Your task to perform on an android device: Open CNN.com Image 0: 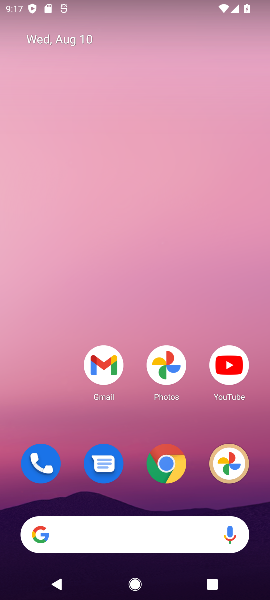
Step 0: click (122, 526)
Your task to perform on an android device: Open CNN.com Image 1: 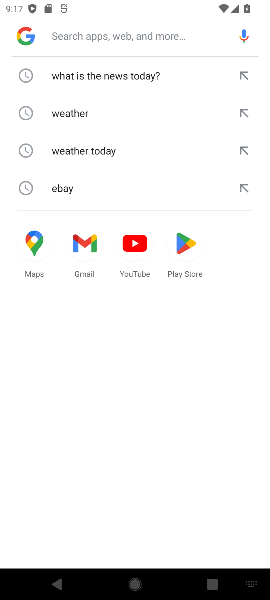
Step 1: type "CNN.com"
Your task to perform on an android device: Open CNN.com Image 2: 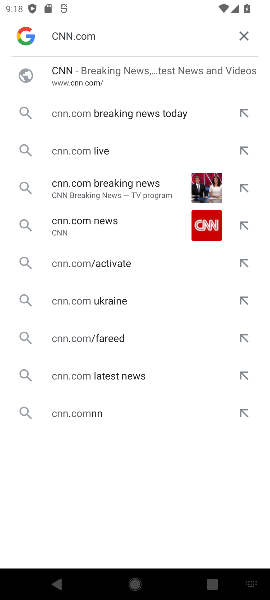
Step 2: click (55, 62)
Your task to perform on an android device: Open CNN.com Image 3: 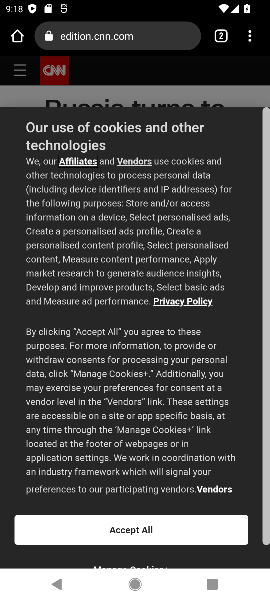
Step 3: task complete